Your task to perform on an android device: Open accessibility settings Image 0: 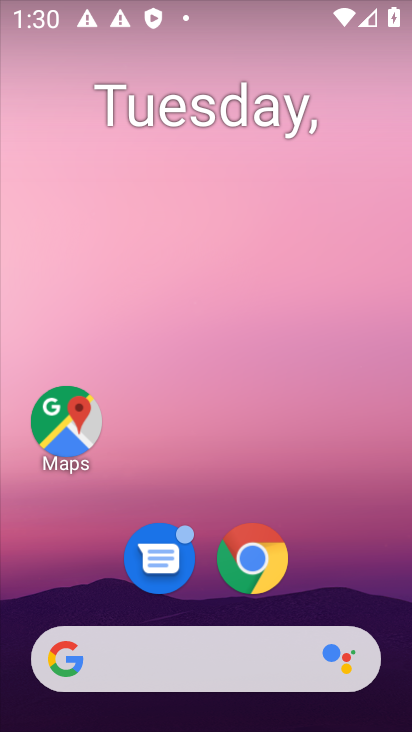
Step 0: drag from (210, 497) to (205, 95)
Your task to perform on an android device: Open accessibility settings Image 1: 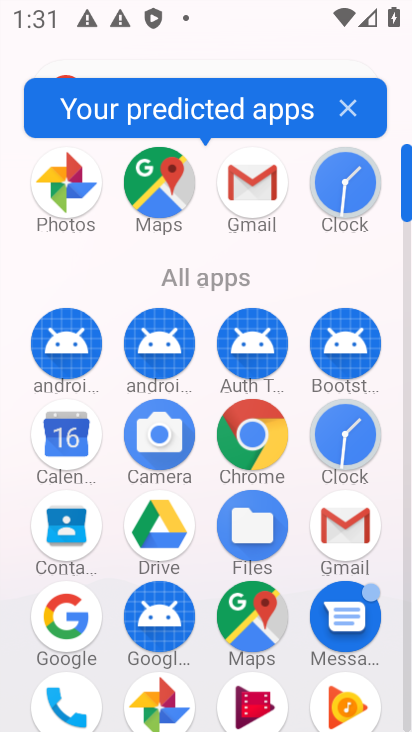
Step 1: drag from (203, 526) to (205, 185)
Your task to perform on an android device: Open accessibility settings Image 2: 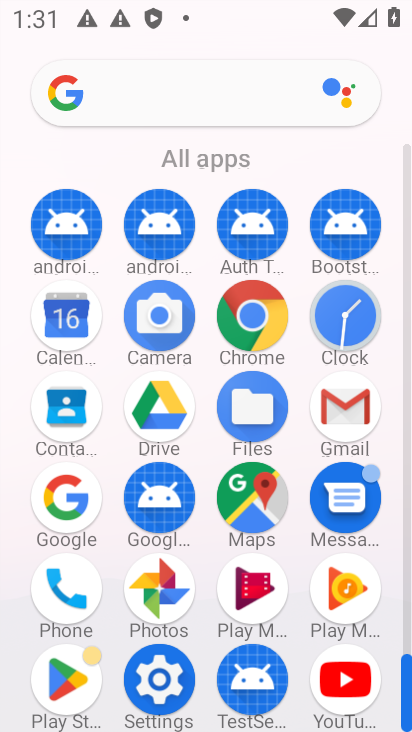
Step 2: click (156, 697)
Your task to perform on an android device: Open accessibility settings Image 3: 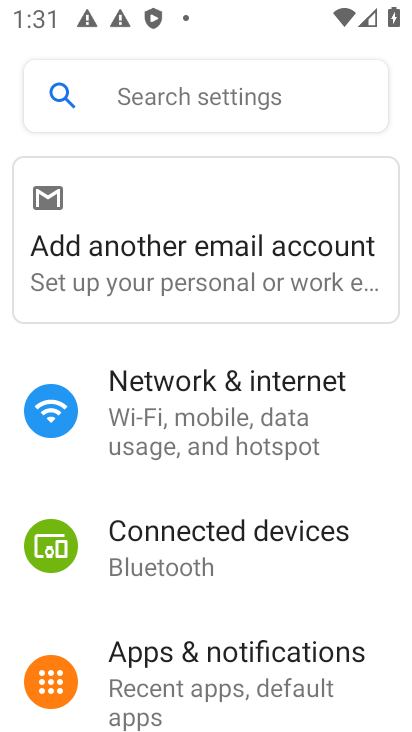
Step 3: drag from (191, 564) to (195, 217)
Your task to perform on an android device: Open accessibility settings Image 4: 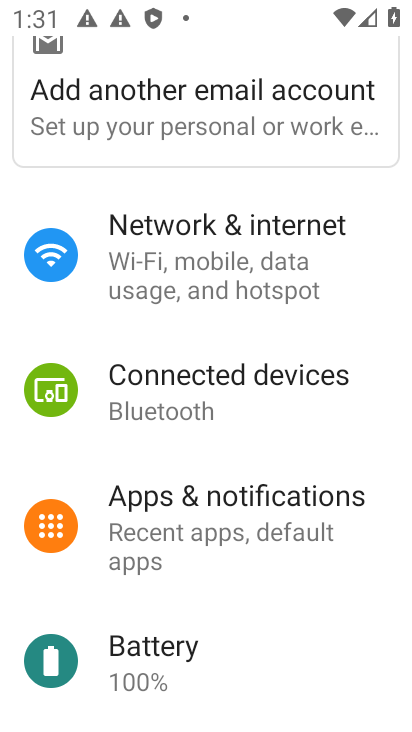
Step 4: drag from (246, 614) to (261, 256)
Your task to perform on an android device: Open accessibility settings Image 5: 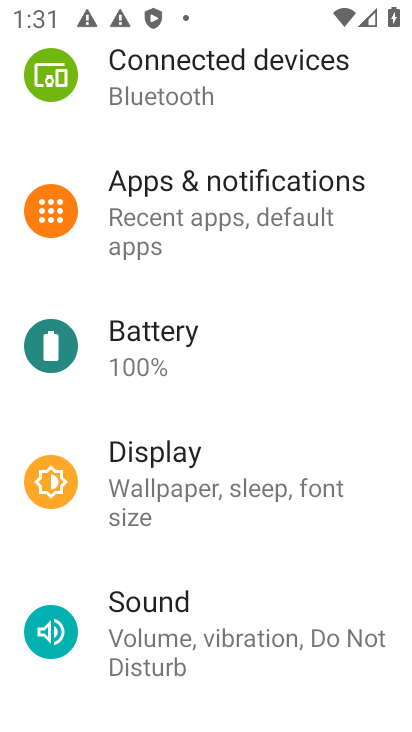
Step 5: drag from (254, 620) to (254, 309)
Your task to perform on an android device: Open accessibility settings Image 6: 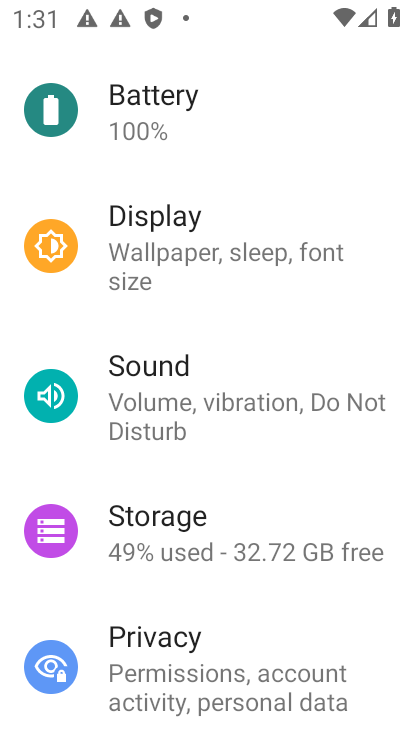
Step 6: drag from (248, 584) to (214, 205)
Your task to perform on an android device: Open accessibility settings Image 7: 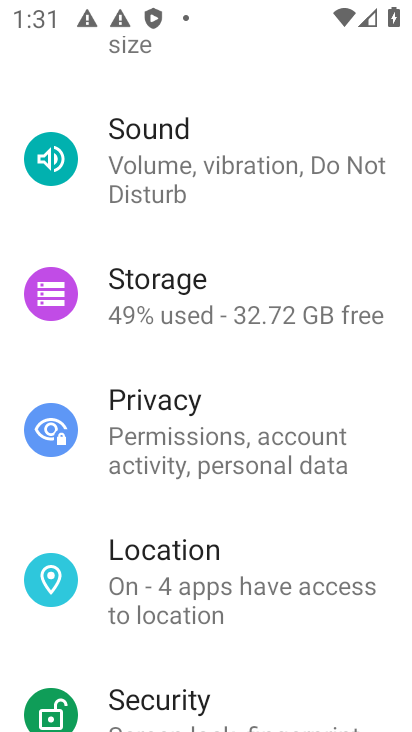
Step 7: drag from (289, 522) to (280, 244)
Your task to perform on an android device: Open accessibility settings Image 8: 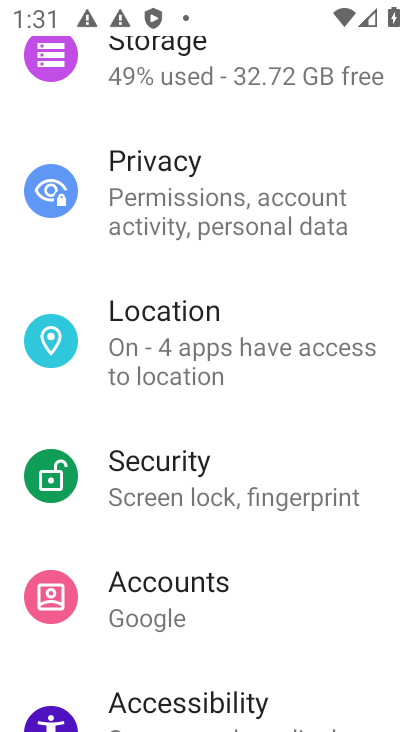
Step 8: drag from (241, 698) to (243, 357)
Your task to perform on an android device: Open accessibility settings Image 9: 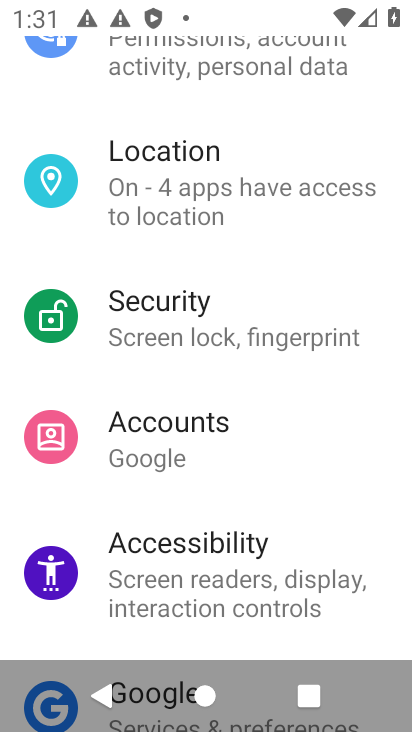
Step 9: click (184, 538)
Your task to perform on an android device: Open accessibility settings Image 10: 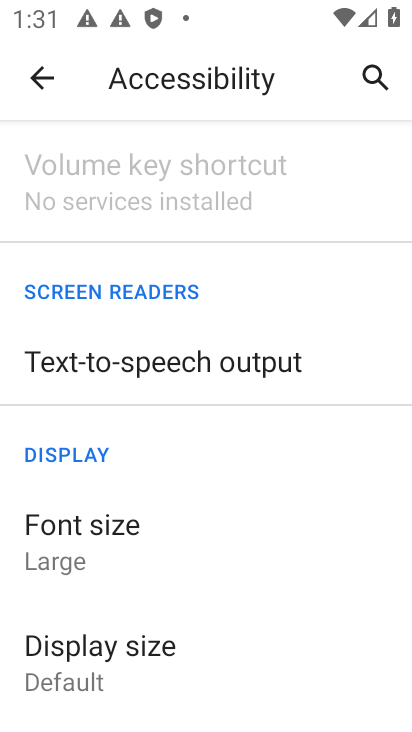
Step 10: task complete